Your task to perform on an android device: Open Chrome and go to settings Image 0: 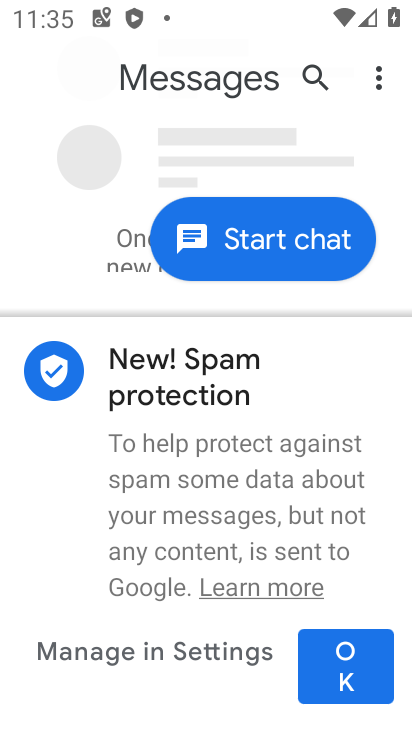
Step 0: press home button
Your task to perform on an android device: Open Chrome and go to settings Image 1: 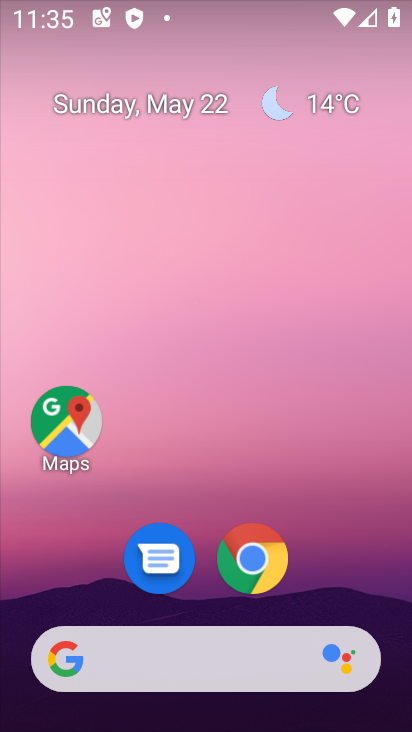
Step 1: click (255, 553)
Your task to perform on an android device: Open Chrome and go to settings Image 2: 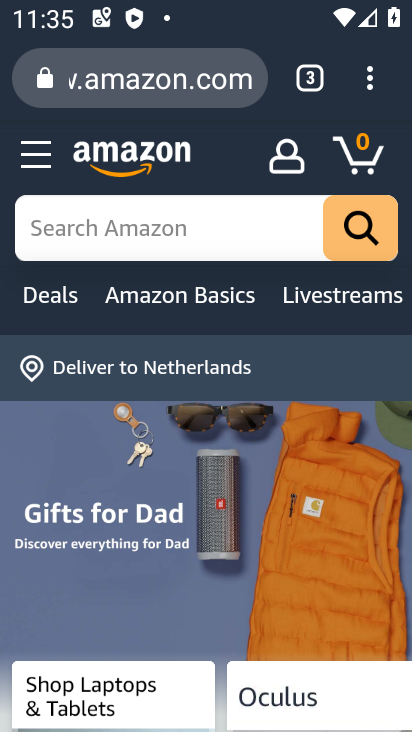
Step 2: click (371, 83)
Your task to perform on an android device: Open Chrome and go to settings Image 3: 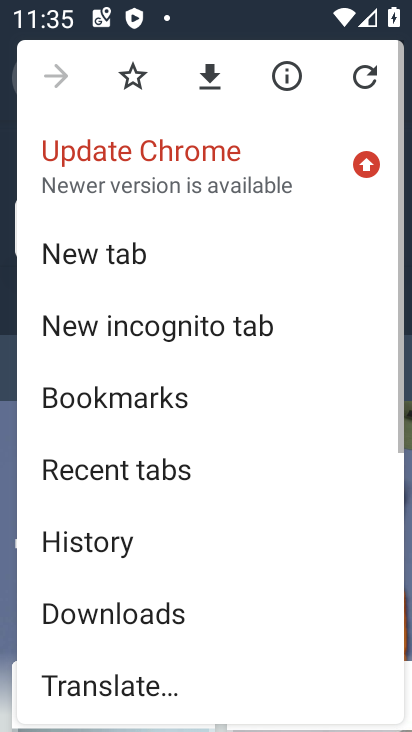
Step 3: drag from (193, 545) to (208, 86)
Your task to perform on an android device: Open Chrome and go to settings Image 4: 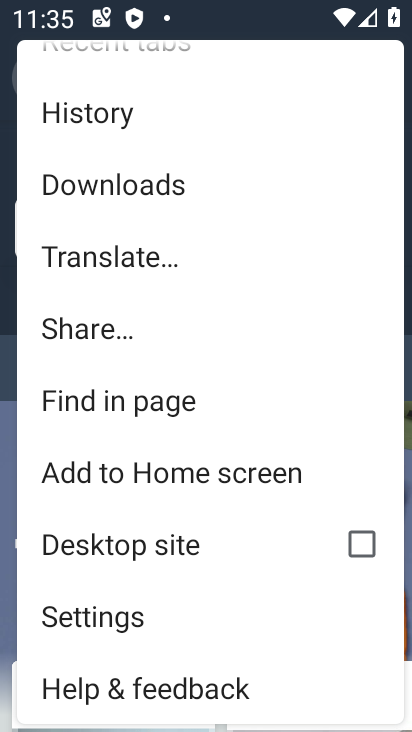
Step 4: click (119, 624)
Your task to perform on an android device: Open Chrome and go to settings Image 5: 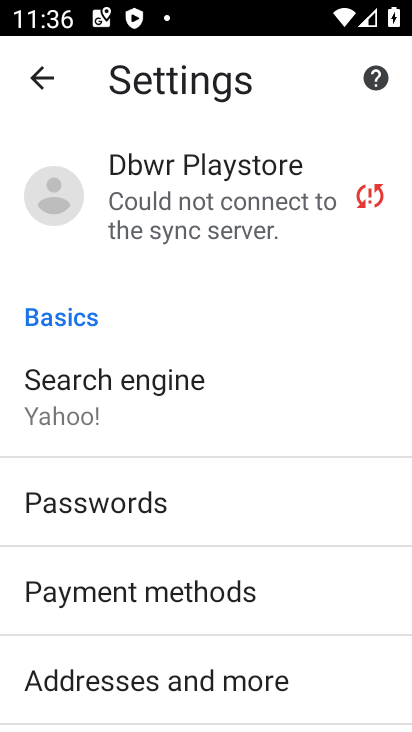
Step 5: task complete